Your task to perform on an android device: toggle pop-ups in chrome Image 0: 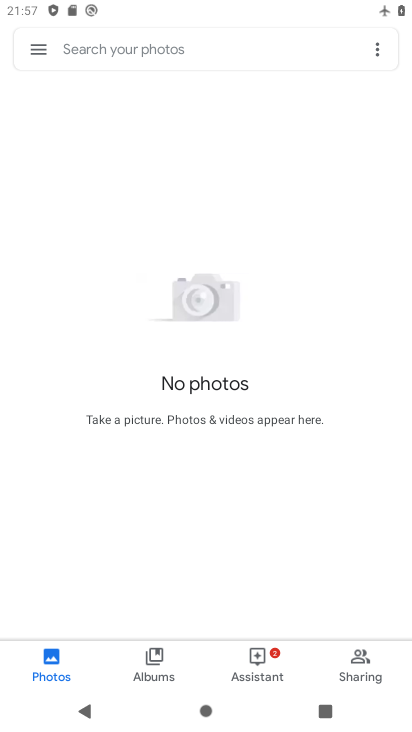
Step 0: press home button
Your task to perform on an android device: toggle pop-ups in chrome Image 1: 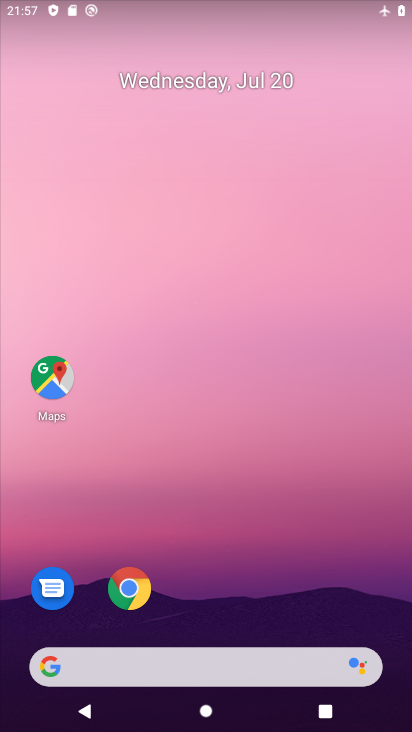
Step 1: click (127, 587)
Your task to perform on an android device: toggle pop-ups in chrome Image 2: 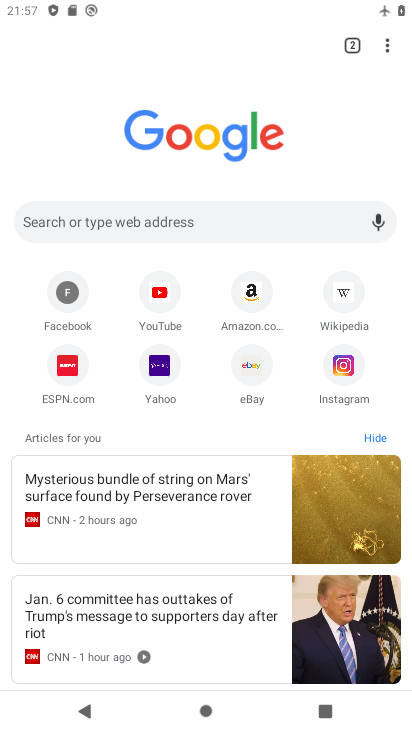
Step 2: click (388, 53)
Your task to perform on an android device: toggle pop-ups in chrome Image 3: 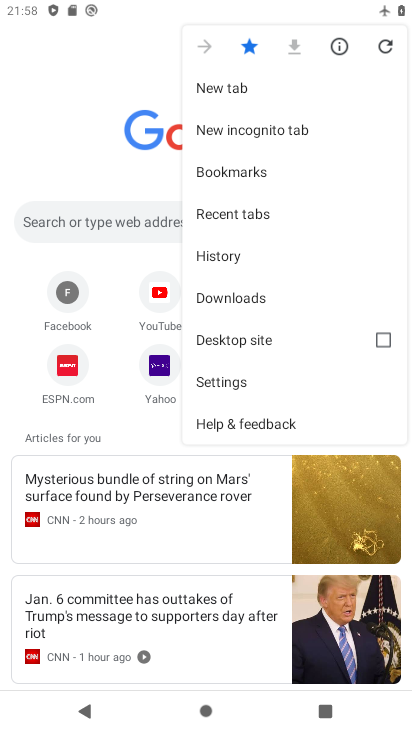
Step 3: click (223, 376)
Your task to perform on an android device: toggle pop-ups in chrome Image 4: 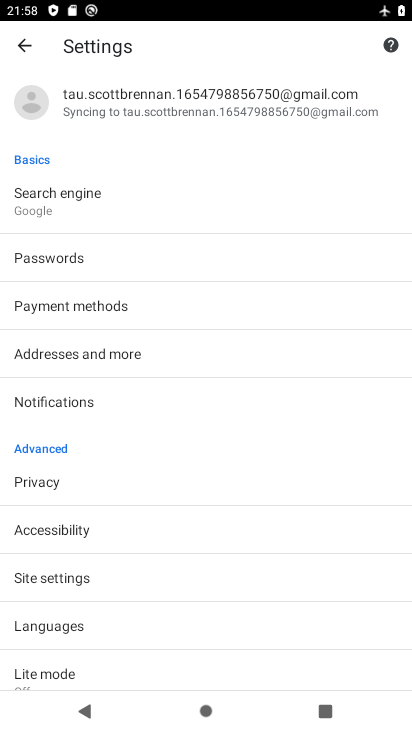
Step 4: click (62, 573)
Your task to perform on an android device: toggle pop-ups in chrome Image 5: 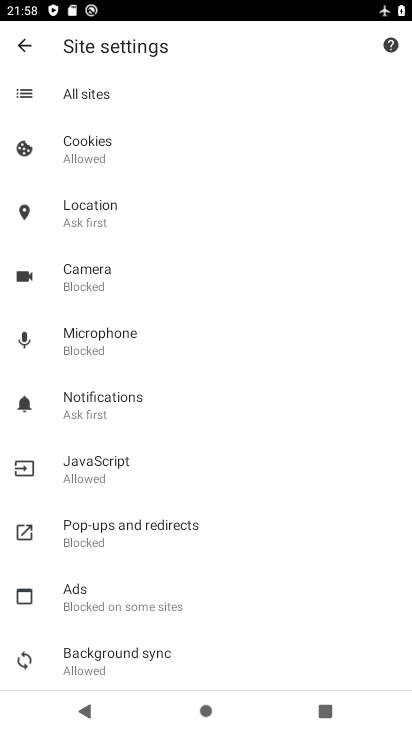
Step 5: click (92, 537)
Your task to perform on an android device: toggle pop-ups in chrome Image 6: 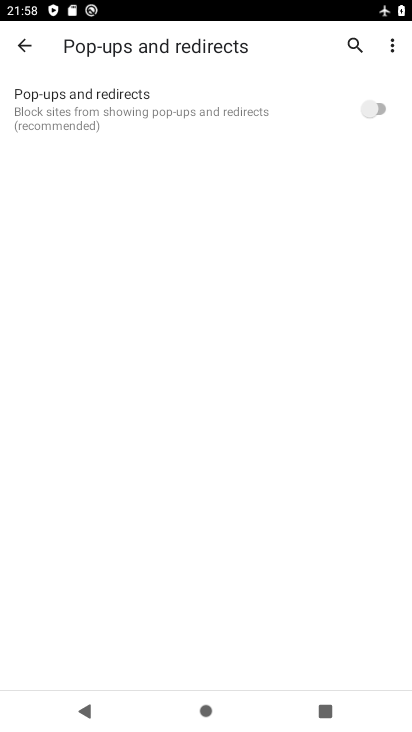
Step 6: click (384, 109)
Your task to perform on an android device: toggle pop-ups in chrome Image 7: 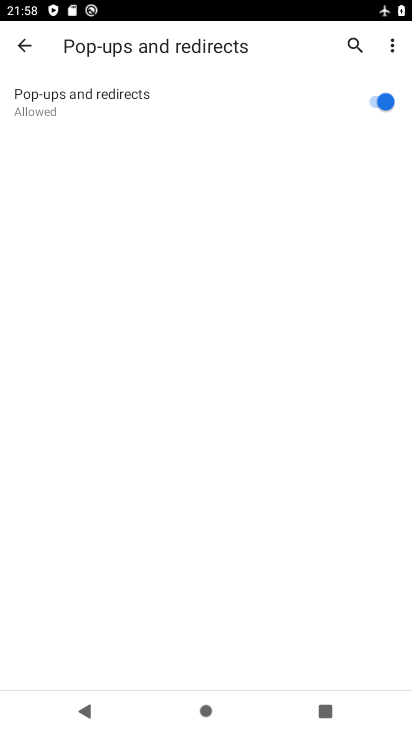
Step 7: task complete